Your task to perform on an android device: Open Youtube and go to the subscriptions tab Image 0: 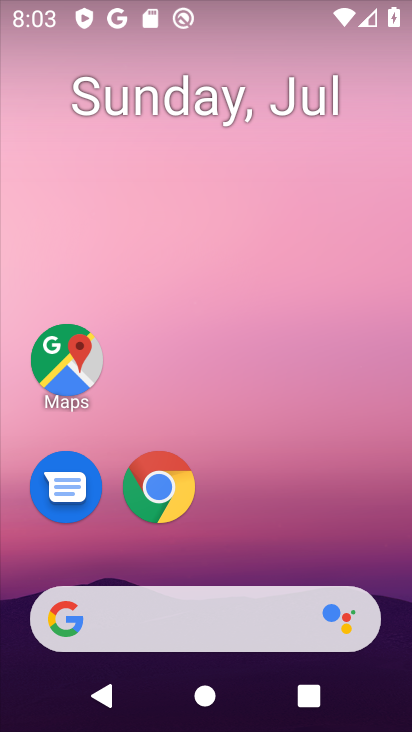
Step 0: drag from (201, 584) to (328, 25)
Your task to perform on an android device: Open Youtube and go to the subscriptions tab Image 1: 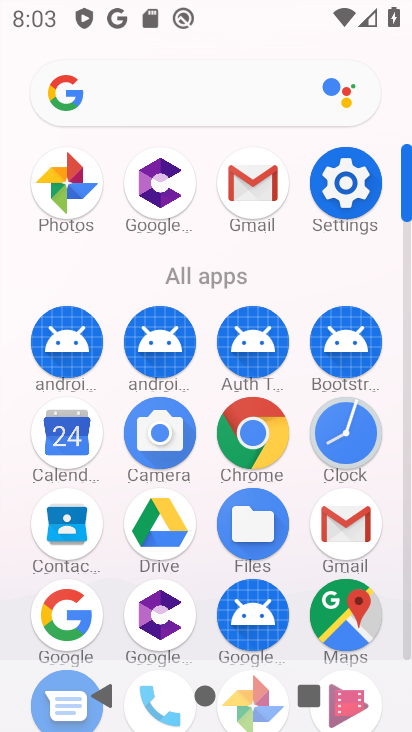
Step 1: drag from (212, 598) to (305, 8)
Your task to perform on an android device: Open Youtube and go to the subscriptions tab Image 2: 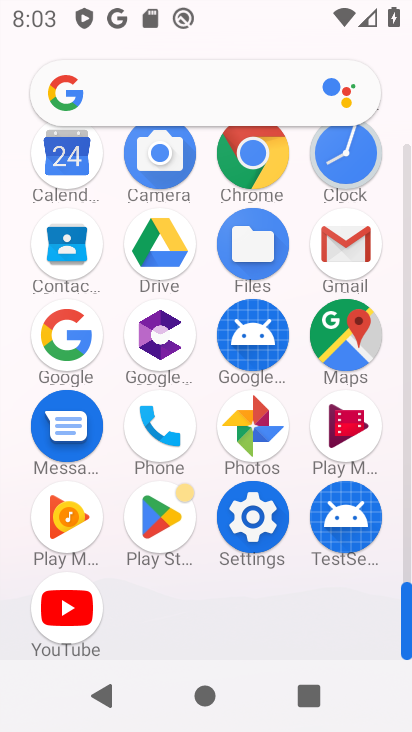
Step 2: click (70, 609)
Your task to perform on an android device: Open Youtube and go to the subscriptions tab Image 3: 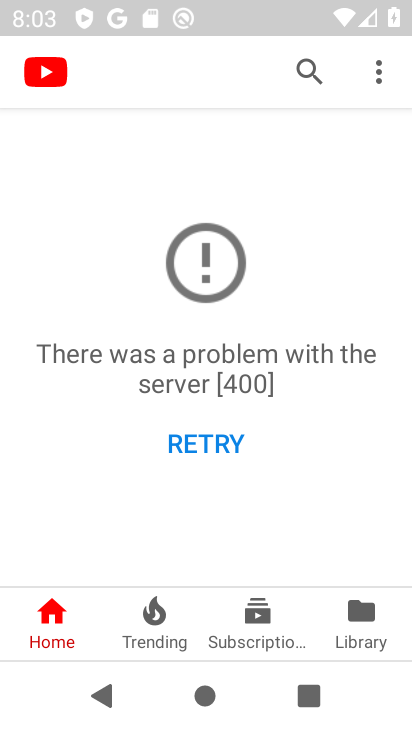
Step 3: click (239, 617)
Your task to perform on an android device: Open Youtube and go to the subscriptions tab Image 4: 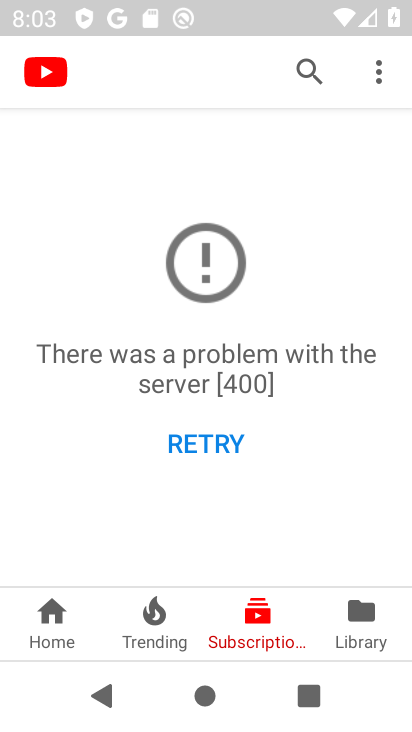
Step 4: task complete